Your task to perform on an android device: Go to wifi settings Image 0: 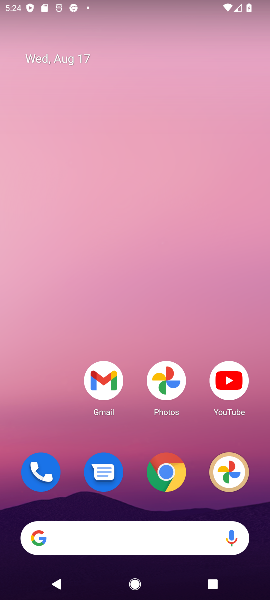
Step 0: drag from (152, 427) to (128, 111)
Your task to perform on an android device: Go to wifi settings Image 1: 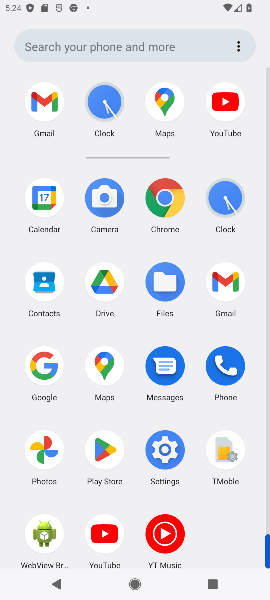
Step 1: click (159, 448)
Your task to perform on an android device: Go to wifi settings Image 2: 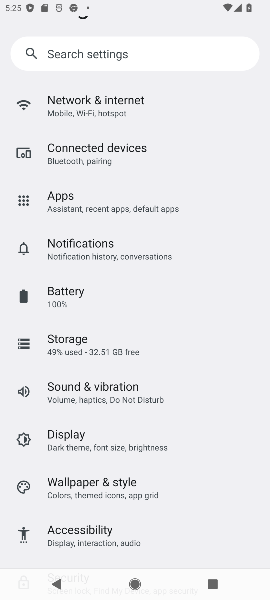
Step 2: click (91, 97)
Your task to perform on an android device: Go to wifi settings Image 3: 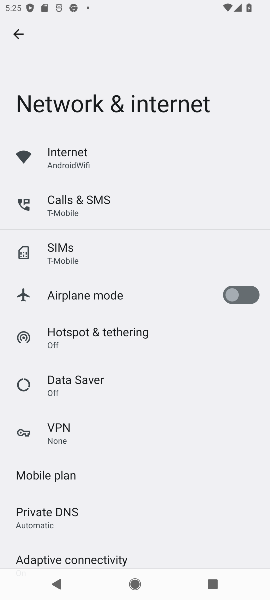
Step 3: click (82, 145)
Your task to perform on an android device: Go to wifi settings Image 4: 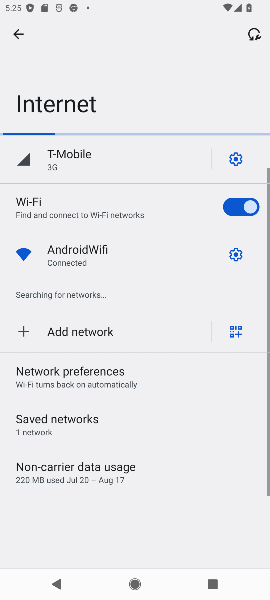
Step 4: task complete